Your task to perform on an android device: allow notifications from all sites in the chrome app Image 0: 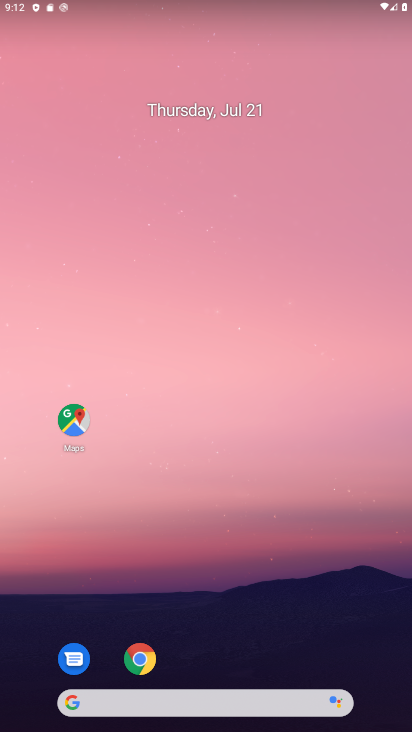
Step 0: drag from (208, 664) to (311, 16)
Your task to perform on an android device: allow notifications from all sites in the chrome app Image 1: 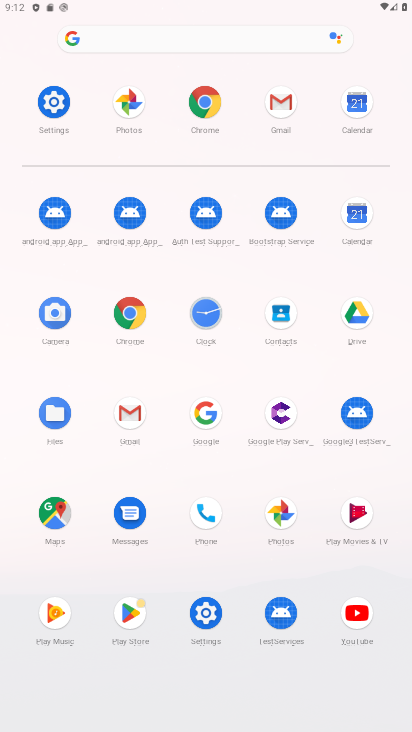
Step 1: click (201, 103)
Your task to perform on an android device: allow notifications from all sites in the chrome app Image 2: 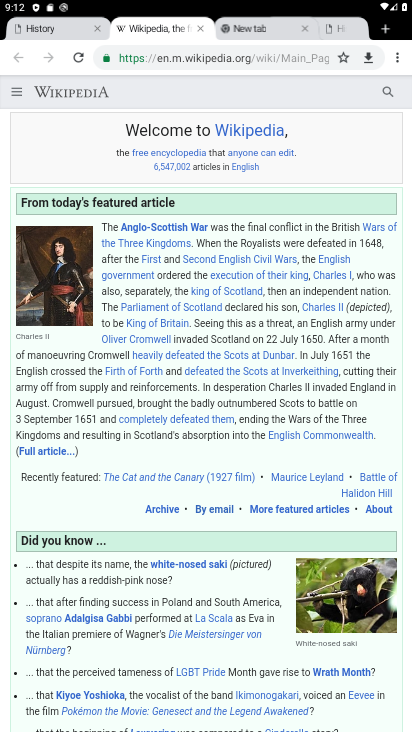
Step 2: click (392, 58)
Your task to perform on an android device: allow notifications from all sites in the chrome app Image 3: 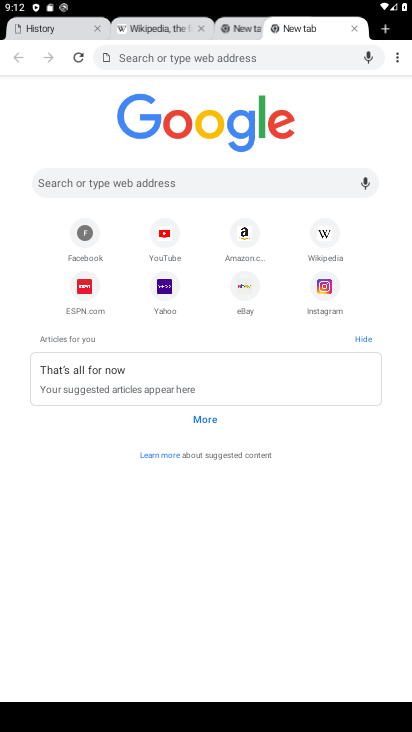
Step 3: drag from (397, 51) to (276, 263)
Your task to perform on an android device: allow notifications from all sites in the chrome app Image 4: 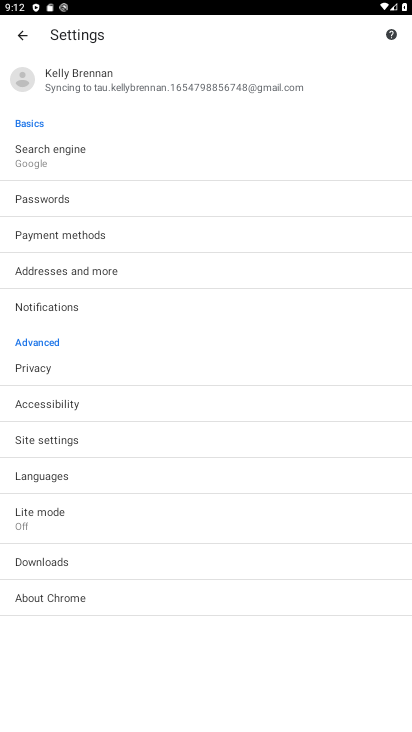
Step 4: click (50, 447)
Your task to perform on an android device: allow notifications from all sites in the chrome app Image 5: 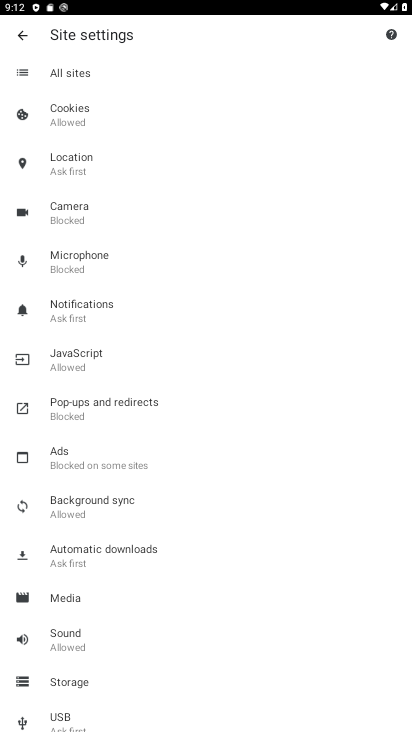
Step 5: click (106, 311)
Your task to perform on an android device: allow notifications from all sites in the chrome app Image 6: 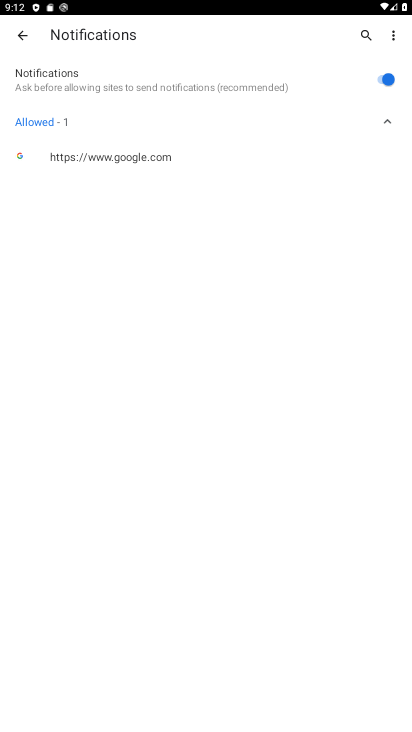
Step 6: task complete